Your task to perform on an android device: change alarm snooze length Image 0: 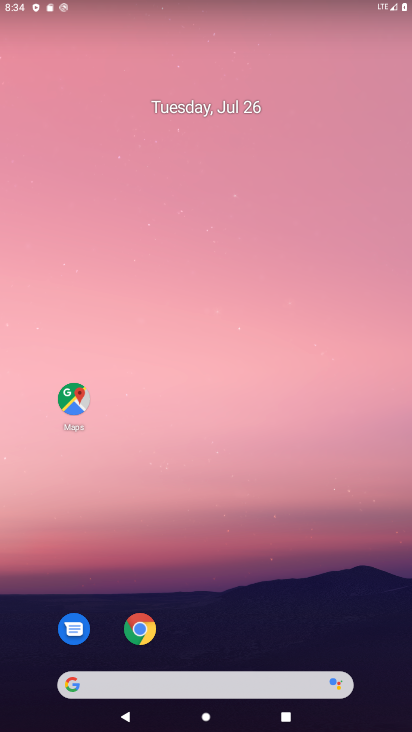
Step 0: drag from (197, 660) to (211, 81)
Your task to perform on an android device: change alarm snooze length Image 1: 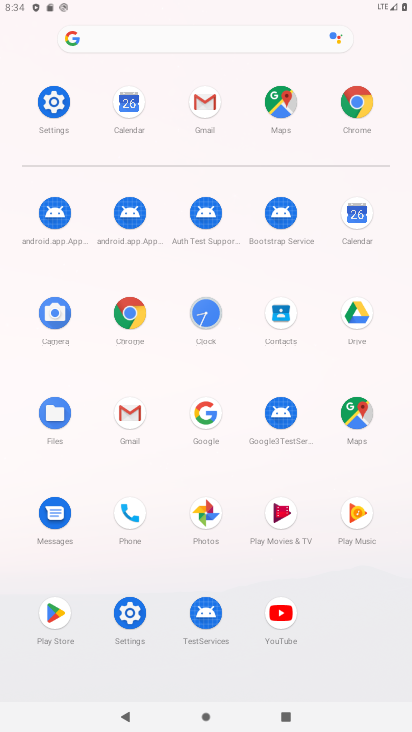
Step 1: click (207, 308)
Your task to perform on an android device: change alarm snooze length Image 2: 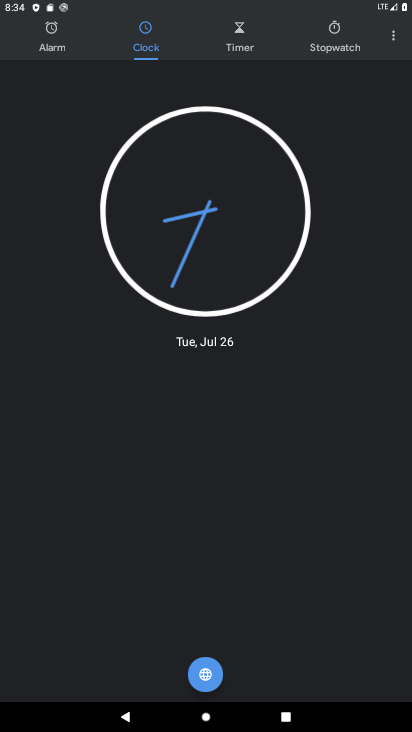
Step 2: drag from (387, 29) to (302, 69)
Your task to perform on an android device: change alarm snooze length Image 3: 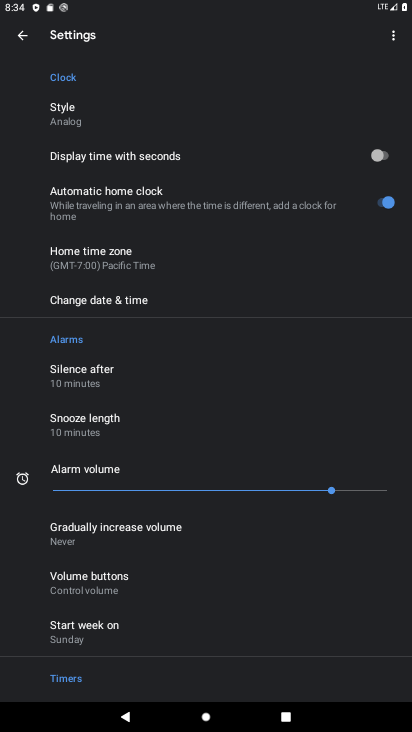
Step 3: click (111, 424)
Your task to perform on an android device: change alarm snooze length Image 4: 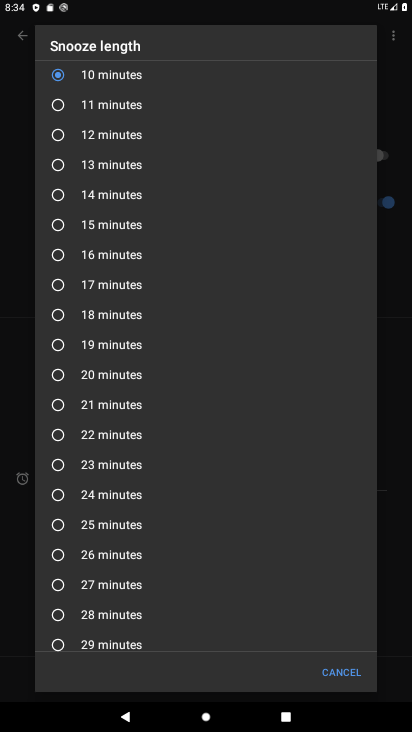
Step 4: click (140, 109)
Your task to perform on an android device: change alarm snooze length Image 5: 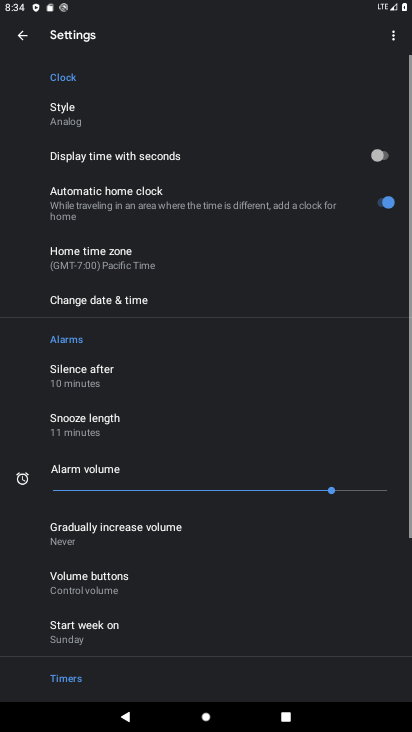
Step 5: task complete